Your task to perform on an android device: Open calendar and show me the first week of next month Image 0: 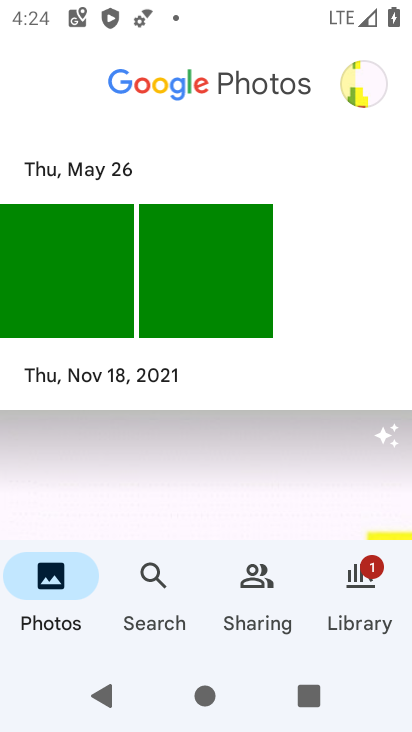
Step 0: click (262, 290)
Your task to perform on an android device: Open calendar and show me the first week of next month Image 1: 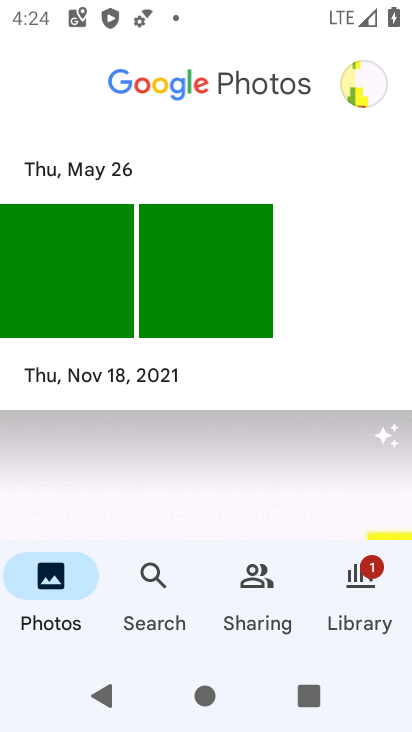
Step 1: drag from (285, 451) to (299, 5)
Your task to perform on an android device: Open calendar and show me the first week of next month Image 2: 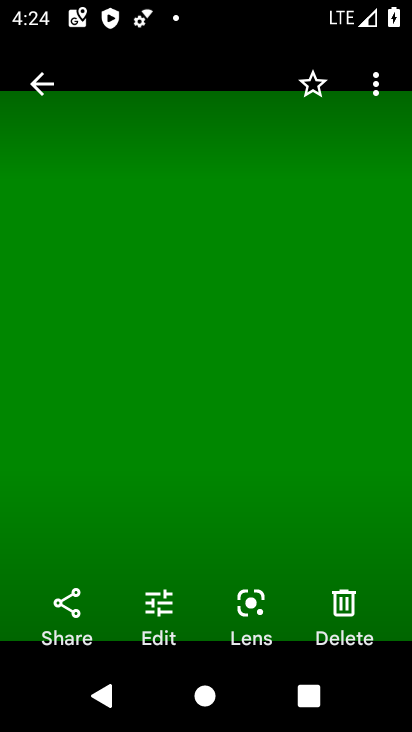
Step 2: press back button
Your task to perform on an android device: Open calendar and show me the first week of next month Image 3: 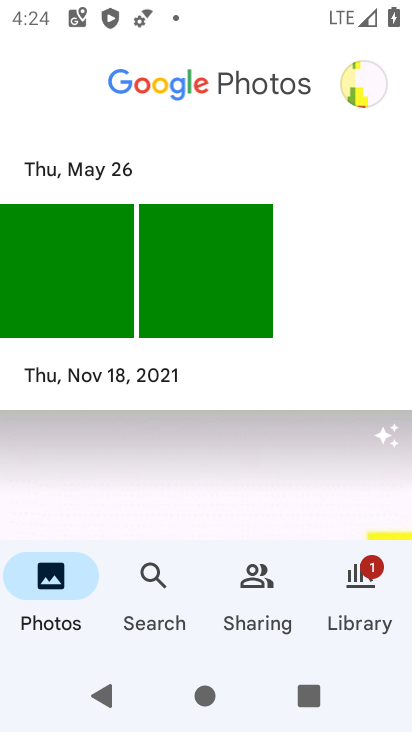
Step 3: drag from (200, 538) to (376, 15)
Your task to perform on an android device: Open calendar and show me the first week of next month Image 4: 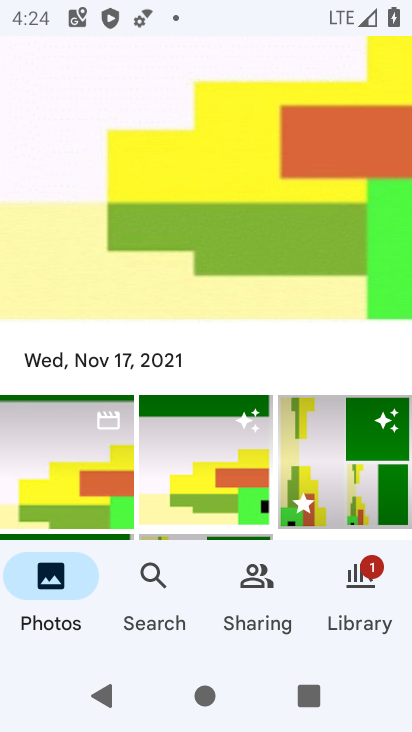
Step 4: drag from (203, 442) to (281, 101)
Your task to perform on an android device: Open calendar and show me the first week of next month Image 5: 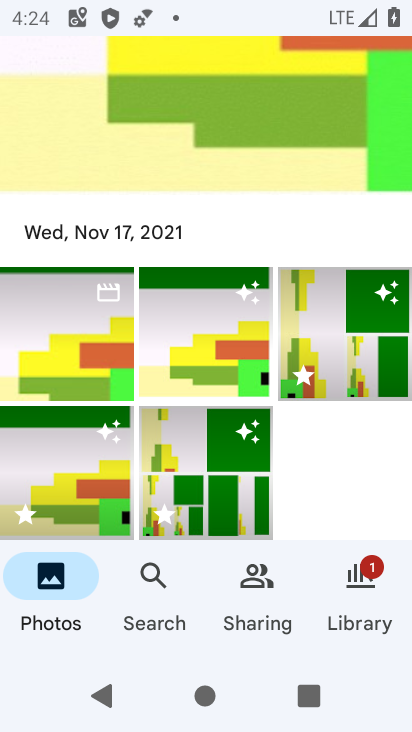
Step 5: drag from (283, 92) to (383, 691)
Your task to perform on an android device: Open calendar and show me the first week of next month Image 6: 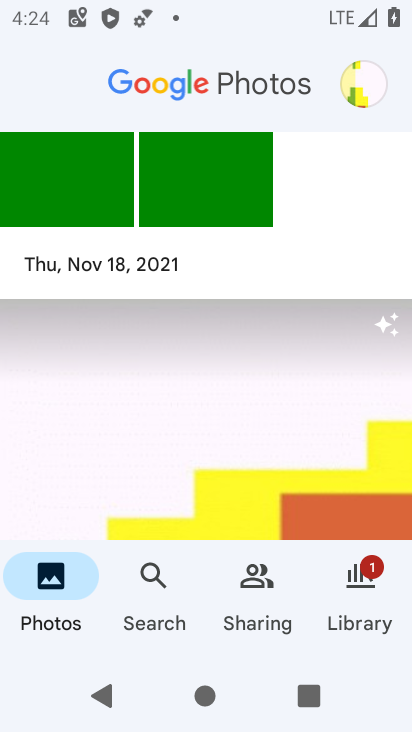
Step 6: press home button
Your task to perform on an android device: Open calendar and show me the first week of next month Image 7: 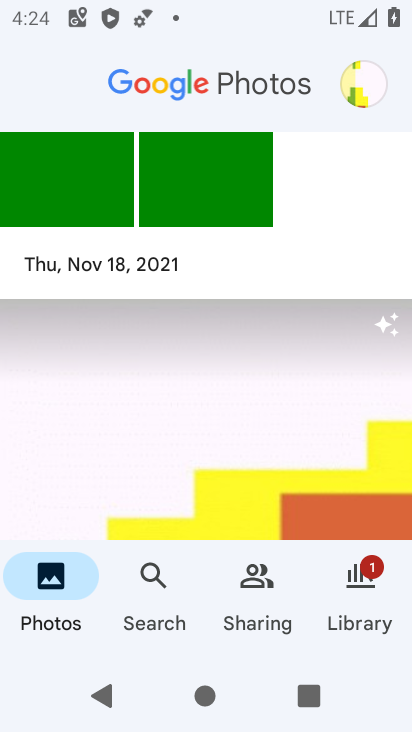
Step 7: click (379, 321)
Your task to perform on an android device: Open calendar and show me the first week of next month Image 8: 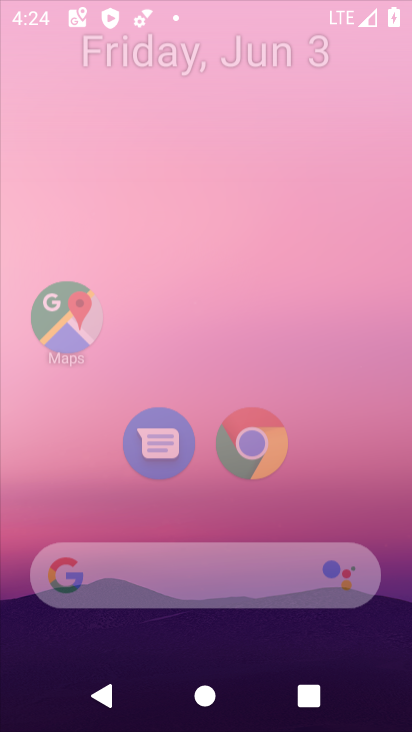
Step 8: drag from (175, 378) to (265, 27)
Your task to perform on an android device: Open calendar and show me the first week of next month Image 9: 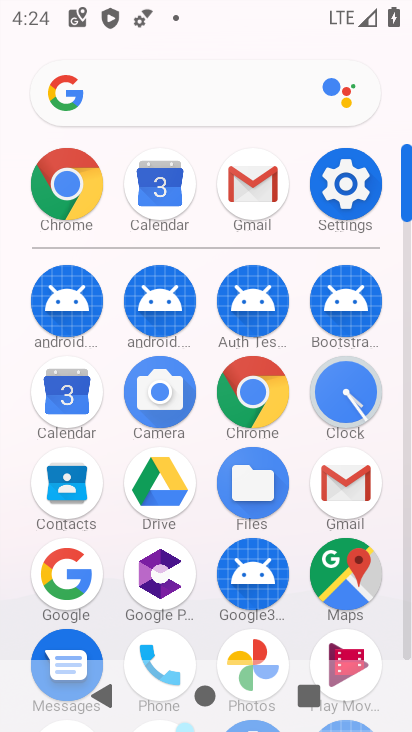
Step 9: click (65, 407)
Your task to perform on an android device: Open calendar and show me the first week of next month Image 10: 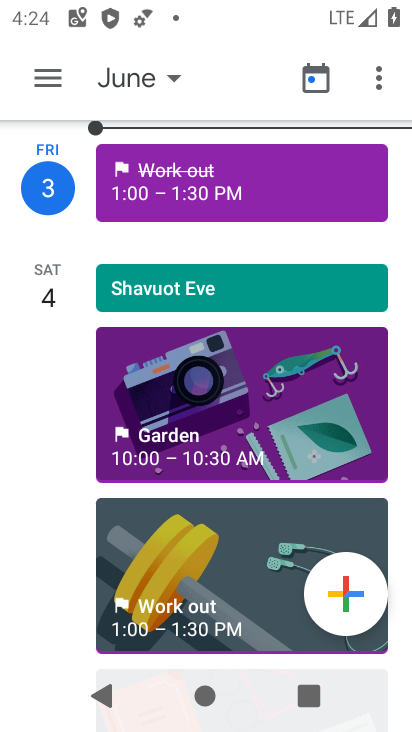
Step 10: click (151, 57)
Your task to perform on an android device: Open calendar and show me the first week of next month Image 11: 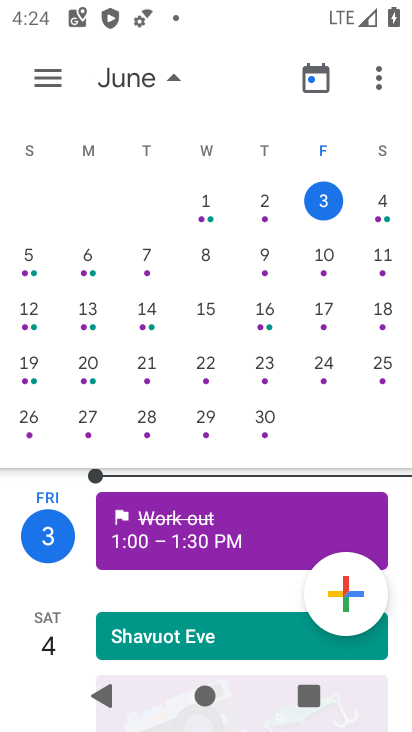
Step 11: drag from (367, 300) to (18, 276)
Your task to perform on an android device: Open calendar and show me the first week of next month Image 12: 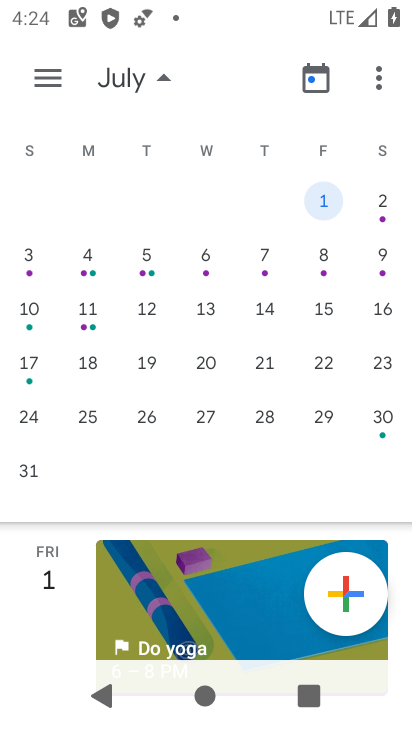
Step 12: click (376, 196)
Your task to perform on an android device: Open calendar and show me the first week of next month Image 13: 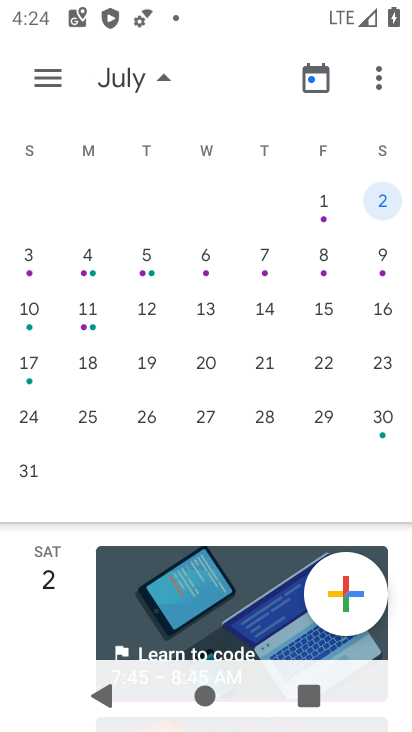
Step 13: task complete